Your task to perform on an android device: open app "VLC for Android" (install if not already installed) and enter user name: "Yves@outlook.com" and password: "internally" Image 0: 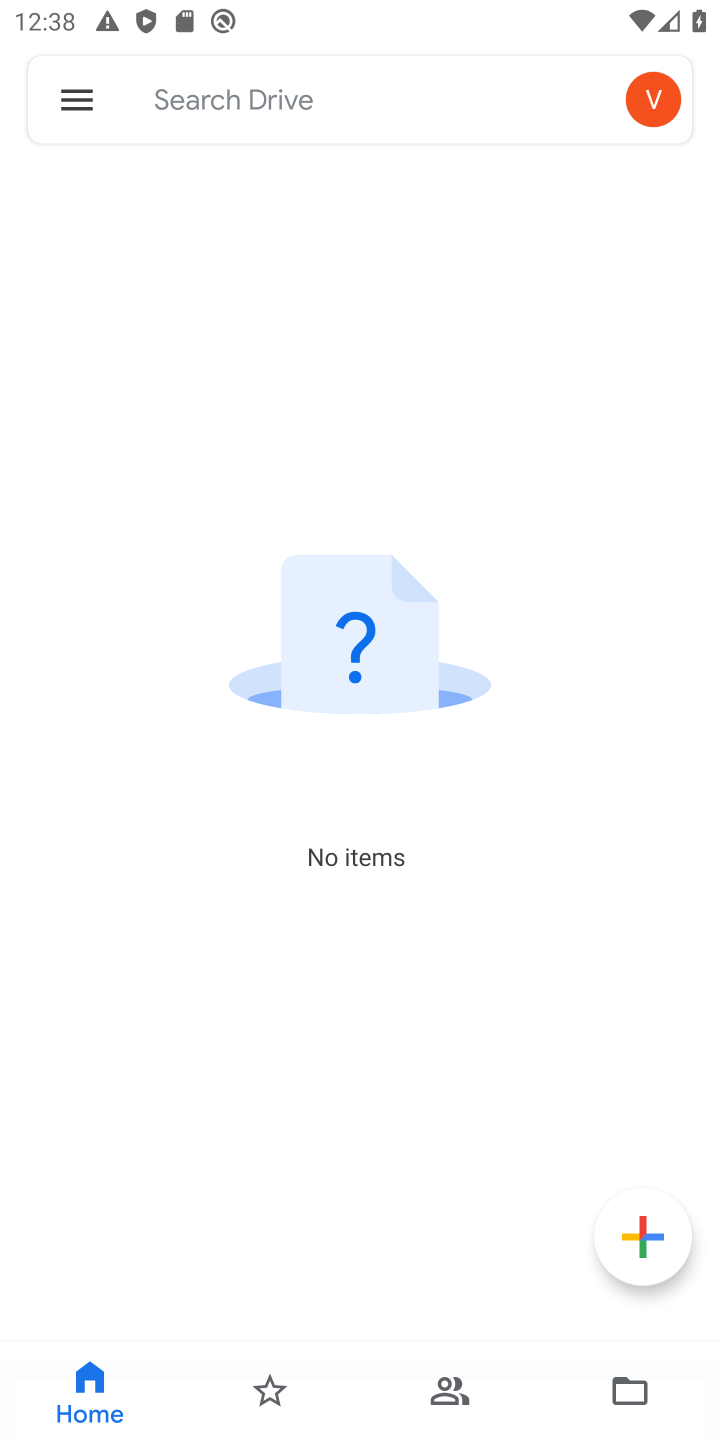
Step 0: press home button
Your task to perform on an android device: open app "VLC for Android" (install if not already installed) and enter user name: "Yves@outlook.com" and password: "internally" Image 1: 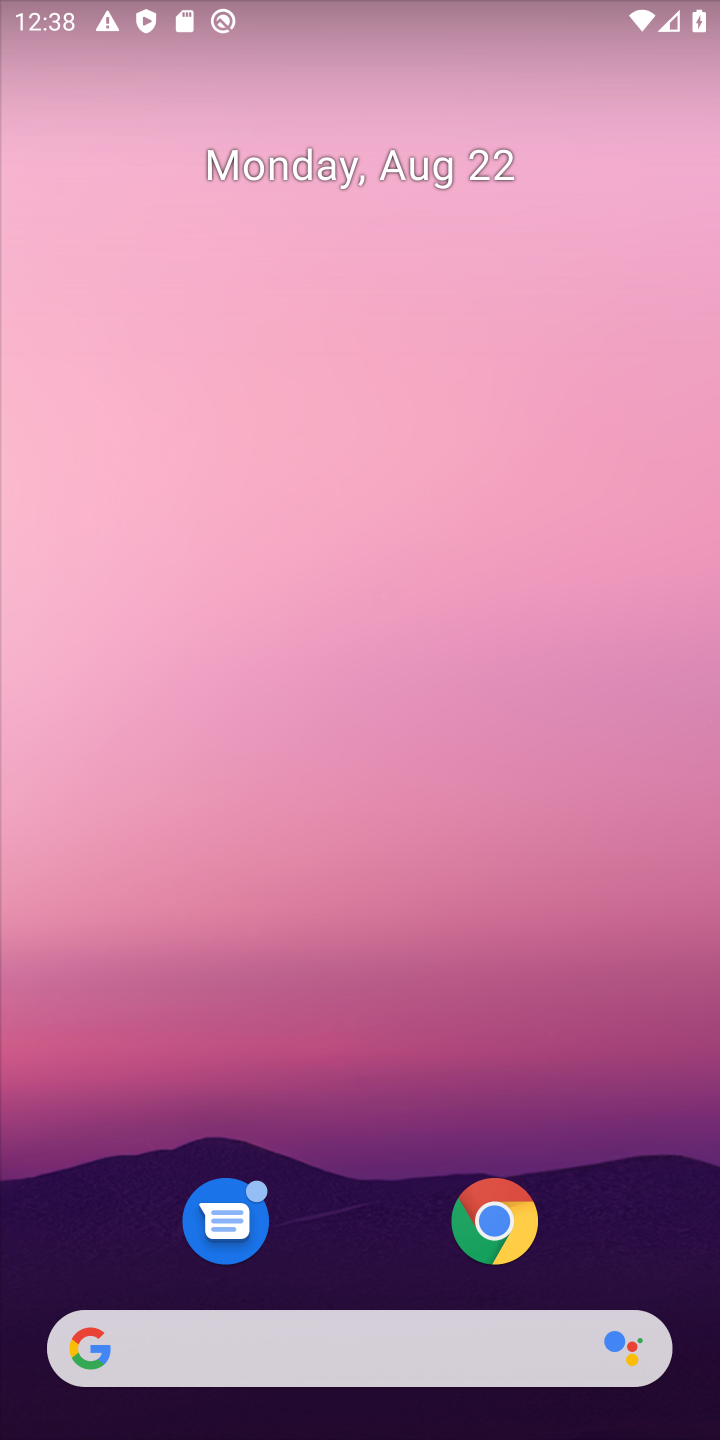
Step 1: press home button
Your task to perform on an android device: open app "VLC for Android" (install if not already installed) and enter user name: "Yves@outlook.com" and password: "internally" Image 2: 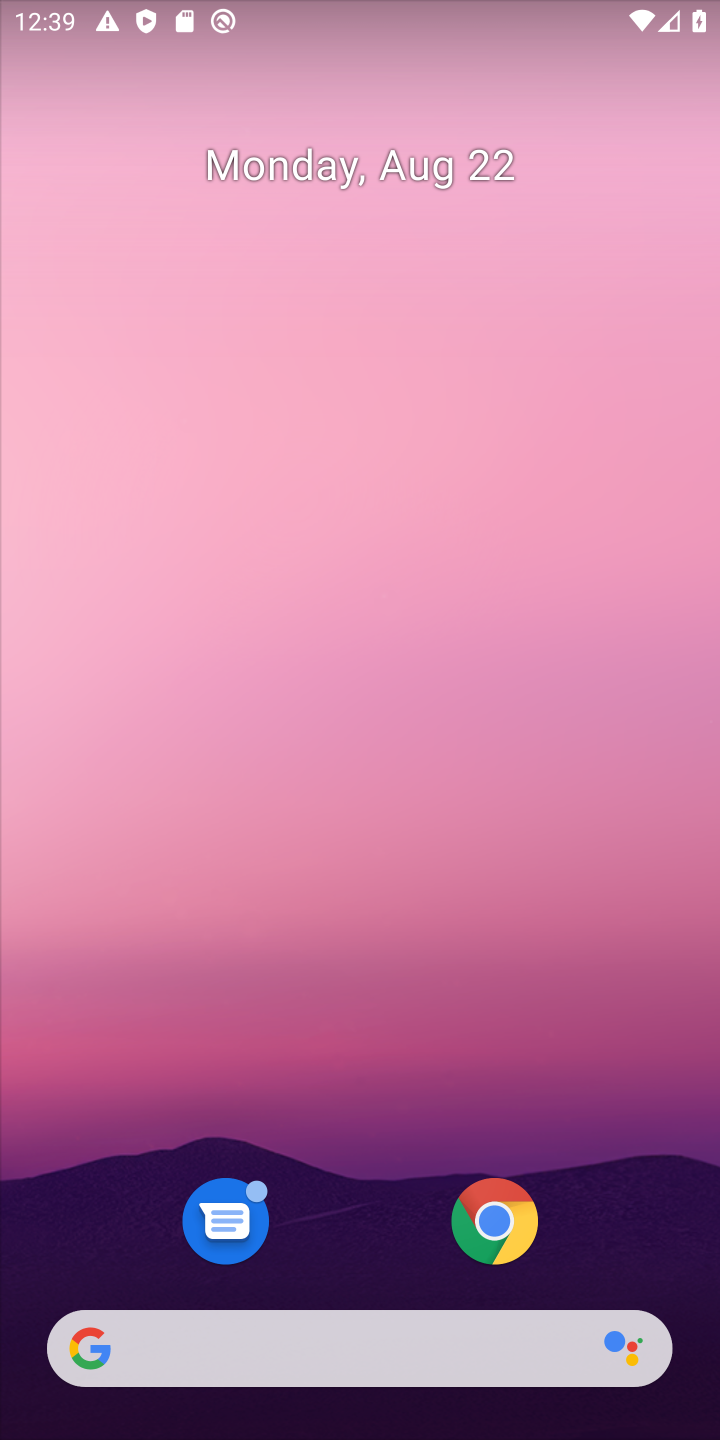
Step 2: drag from (365, 1284) to (446, 165)
Your task to perform on an android device: open app "VLC for Android" (install if not already installed) and enter user name: "Yves@outlook.com" and password: "internally" Image 3: 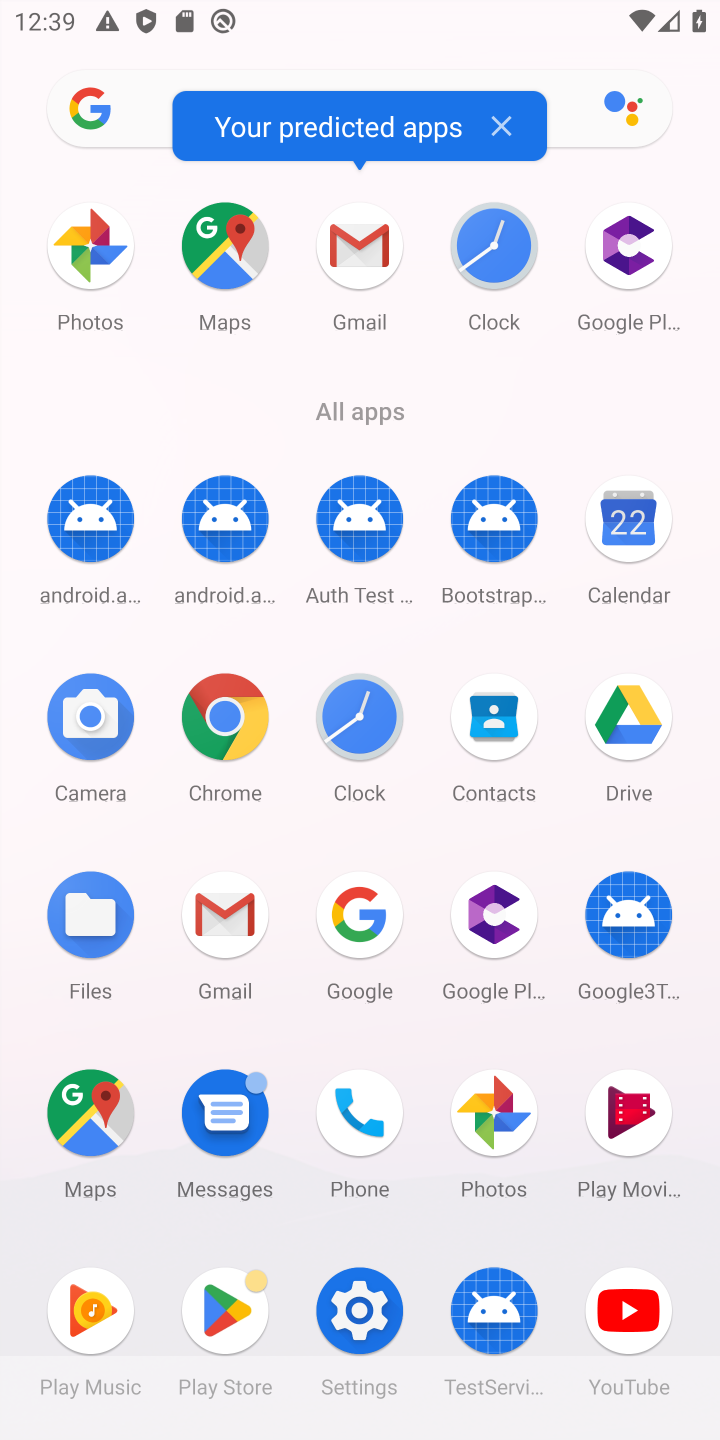
Step 3: click (212, 1297)
Your task to perform on an android device: open app "VLC for Android" (install if not already installed) and enter user name: "Yves@outlook.com" and password: "internally" Image 4: 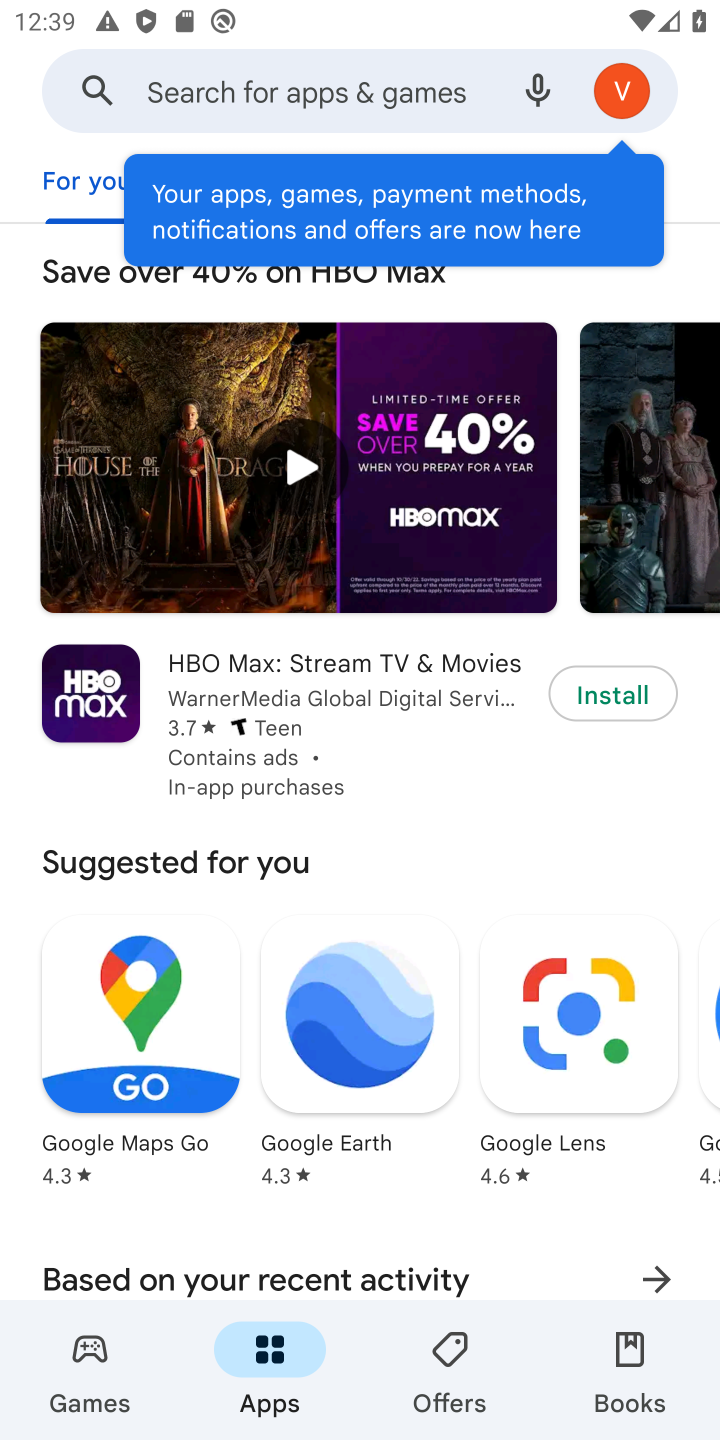
Step 4: click (216, 84)
Your task to perform on an android device: open app "VLC for Android" (install if not already installed) and enter user name: "Yves@outlook.com" and password: "internally" Image 5: 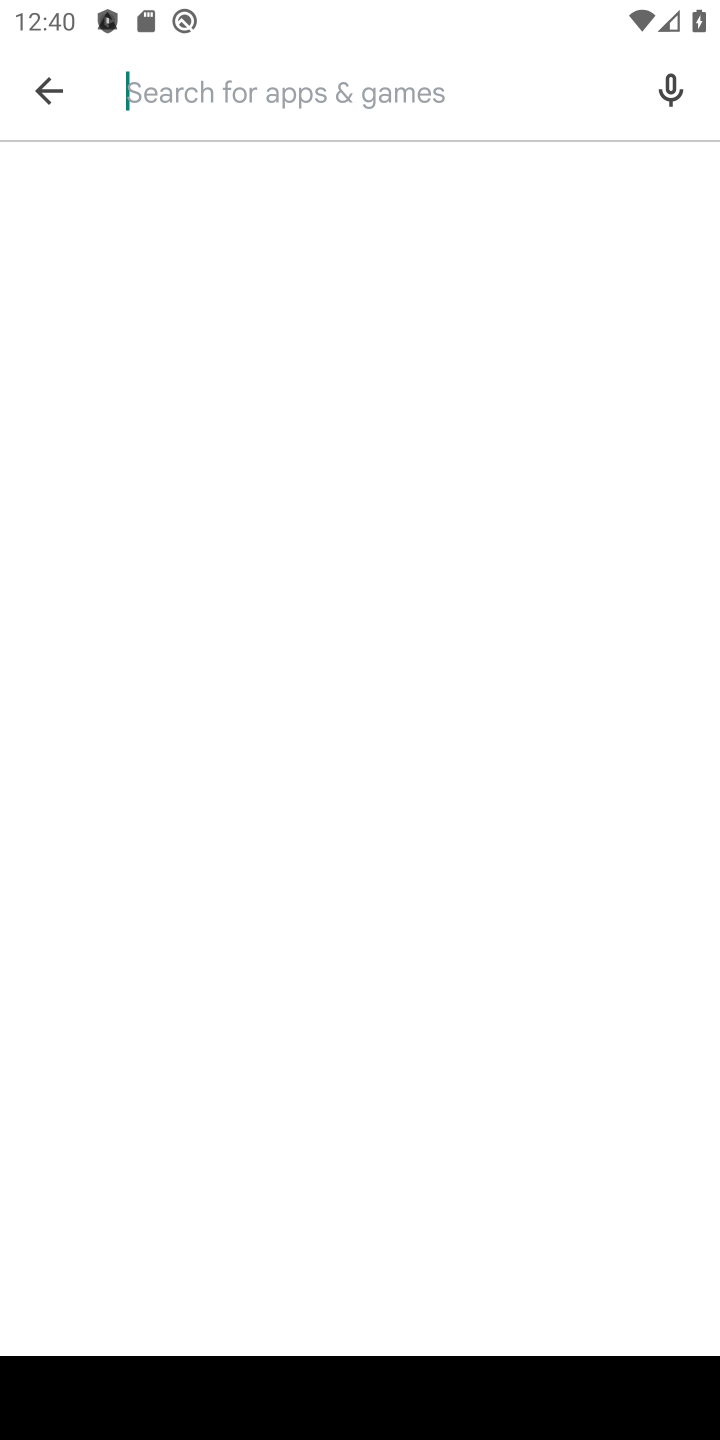
Step 5: type "VLC for Android"
Your task to perform on an android device: open app "VLC for Android" (install if not already installed) and enter user name: "Yves@outlook.com" and password: "internally" Image 6: 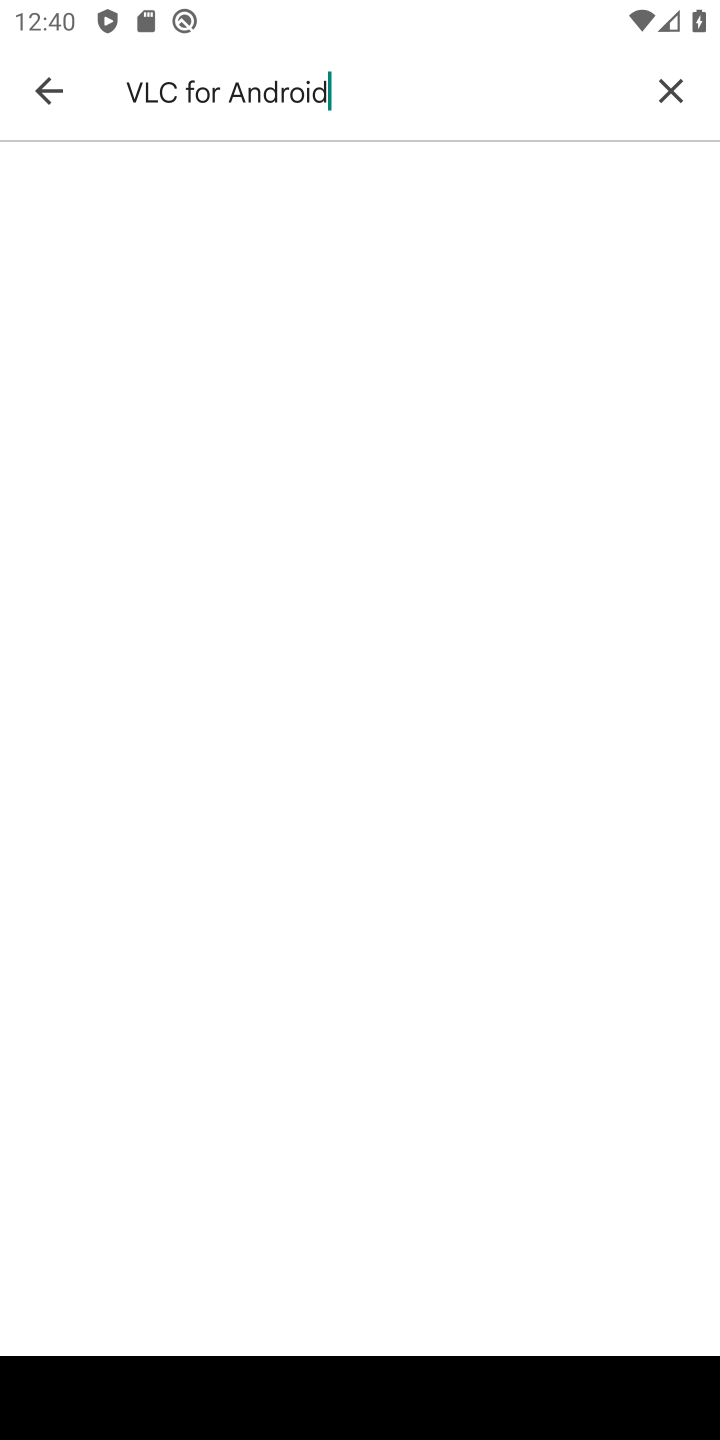
Step 6: type ""
Your task to perform on an android device: open app "VLC for Android" (install if not already installed) and enter user name: "Yves@outlook.com" and password: "internally" Image 7: 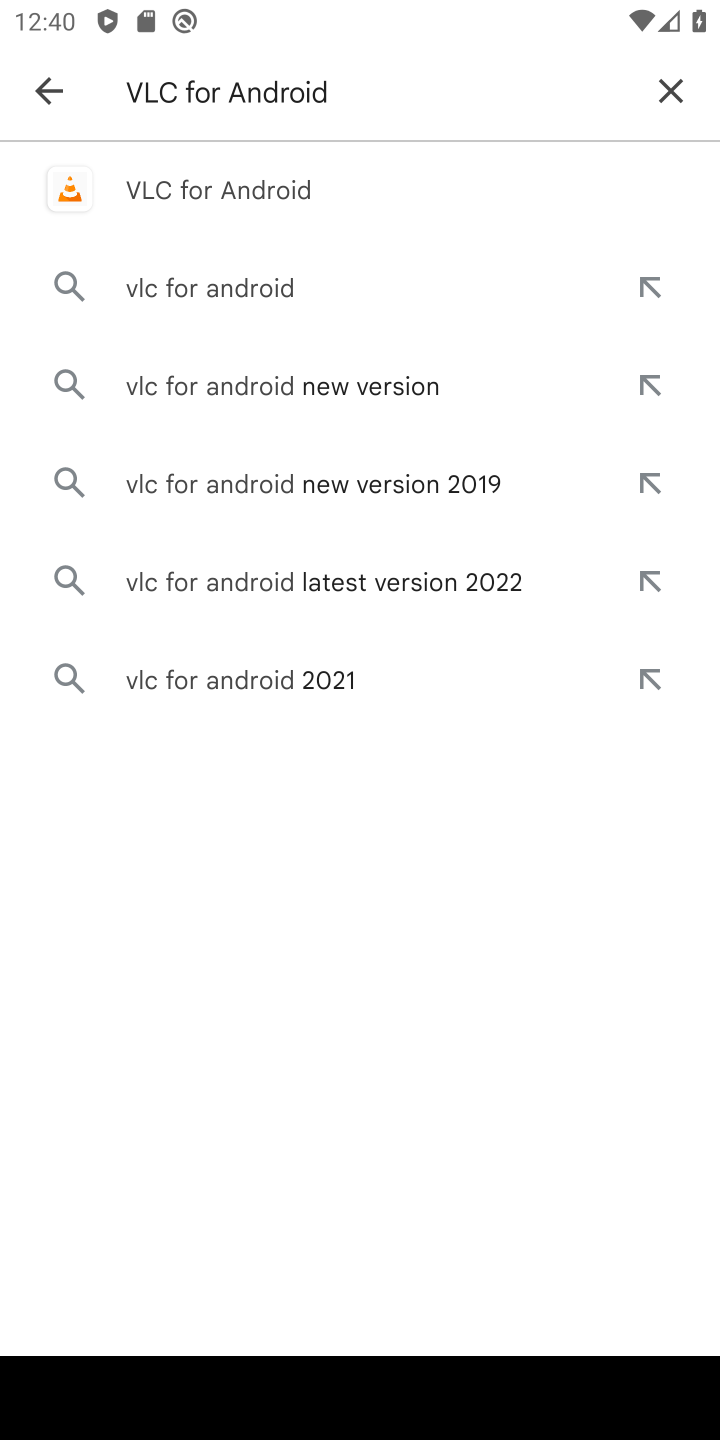
Step 7: click (312, 194)
Your task to perform on an android device: open app "VLC for Android" (install if not already installed) and enter user name: "Yves@outlook.com" and password: "internally" Image 8: 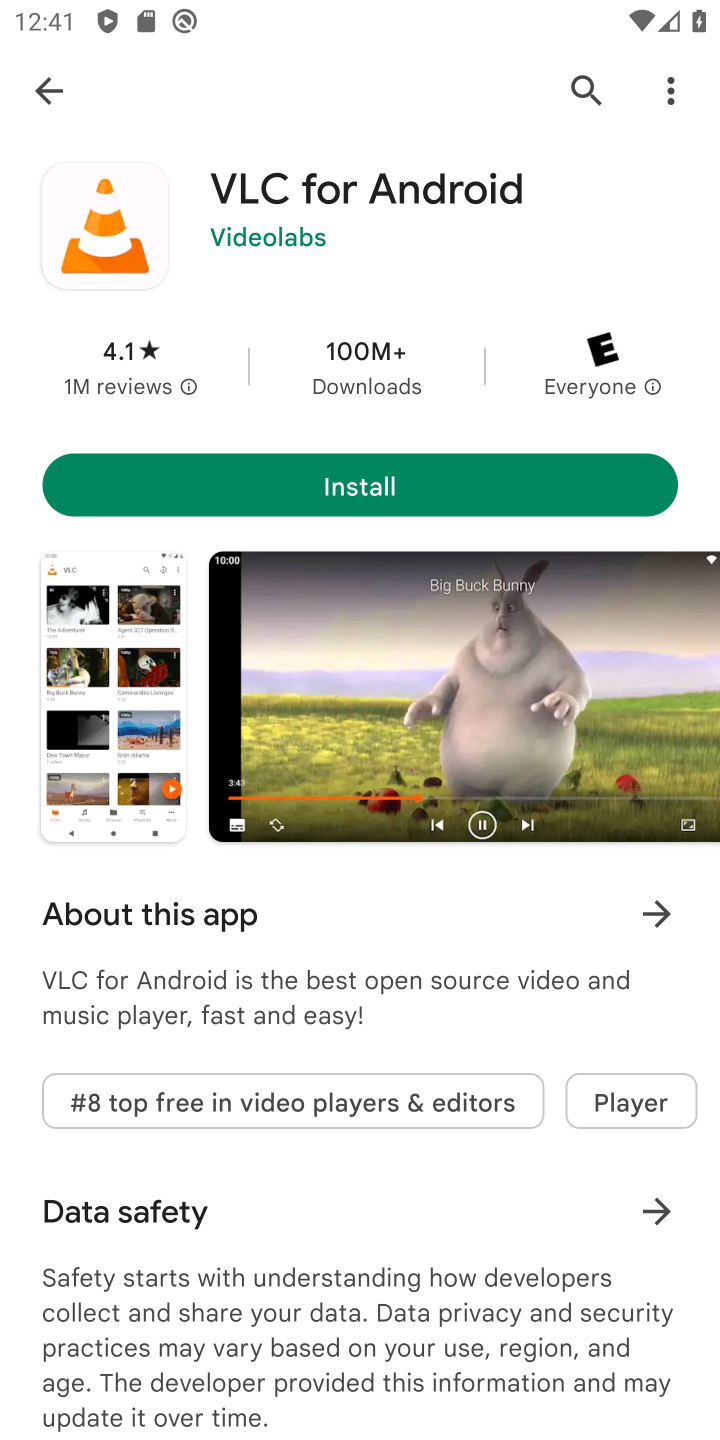
Step 8: click (384, 469)
Your task to perform on an android device: open app "VLC for Android" (install if not already installed) and enter user name: "Yves@outlook.com" and password: "internally" Image 9: 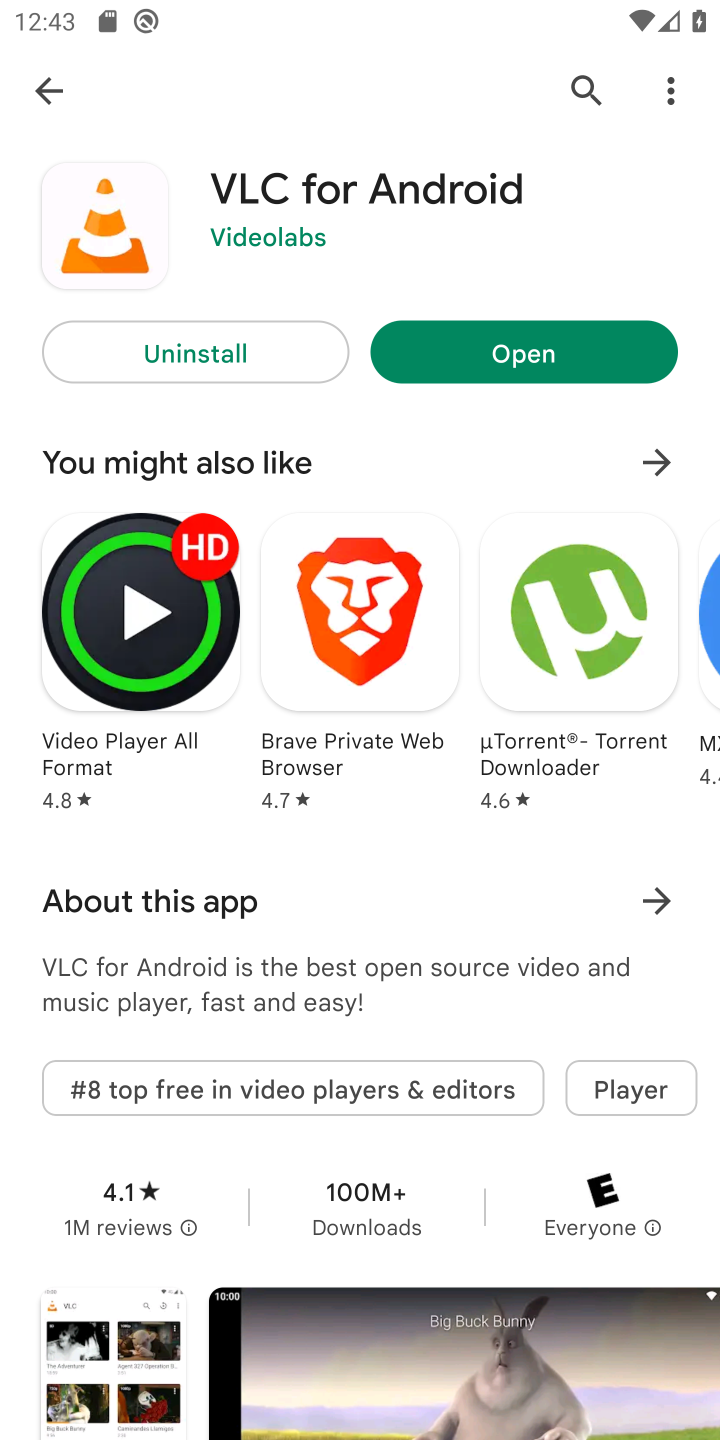
Step 9: click (553, 352)
Your task to perform on an android device: open app "VLC for Android" (install if not already installed) and enter user name: "Yves@outlook.com" and password: "internally" Image 10: 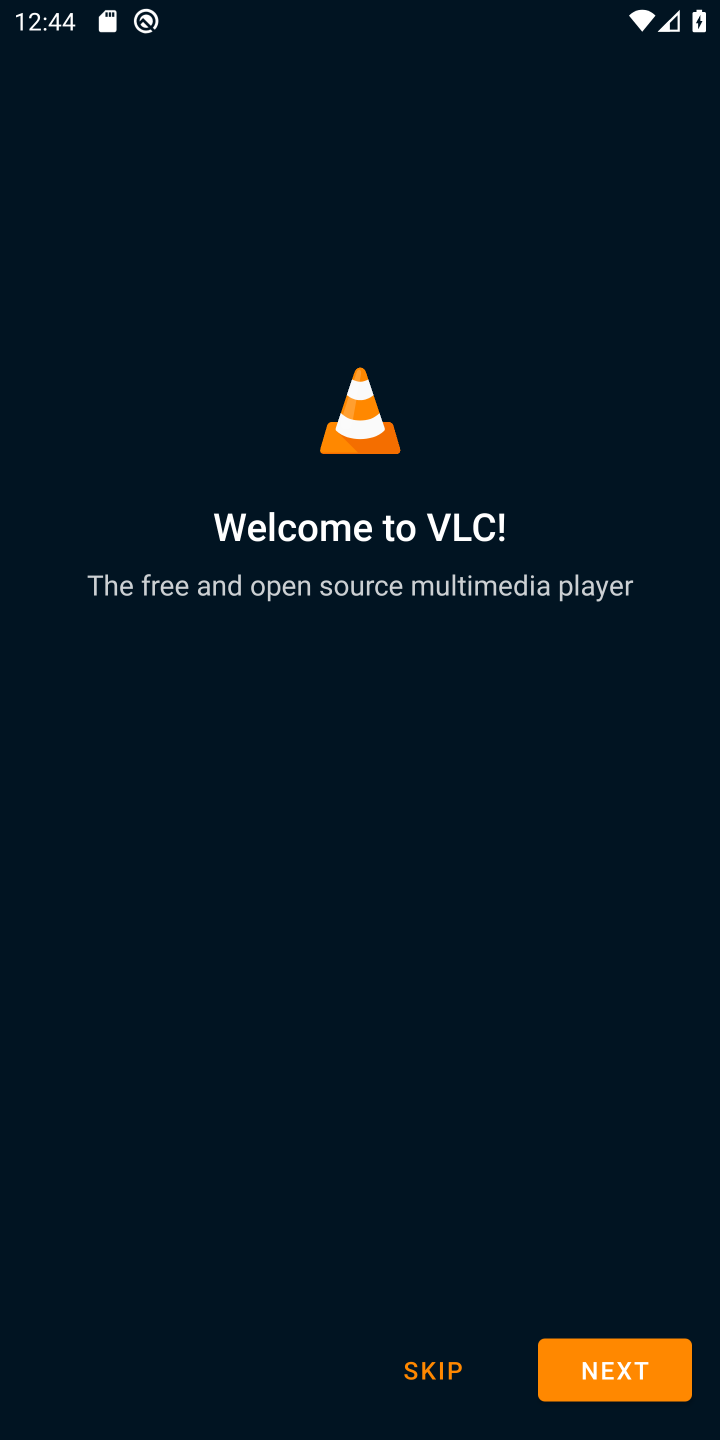
Step 10: click (430, 1362)
Your task to perform on an android device: open app "VLC for Android" (install if not already installed) and enter user name: "Yves@outlook.com" and password: "internally" Image 11: 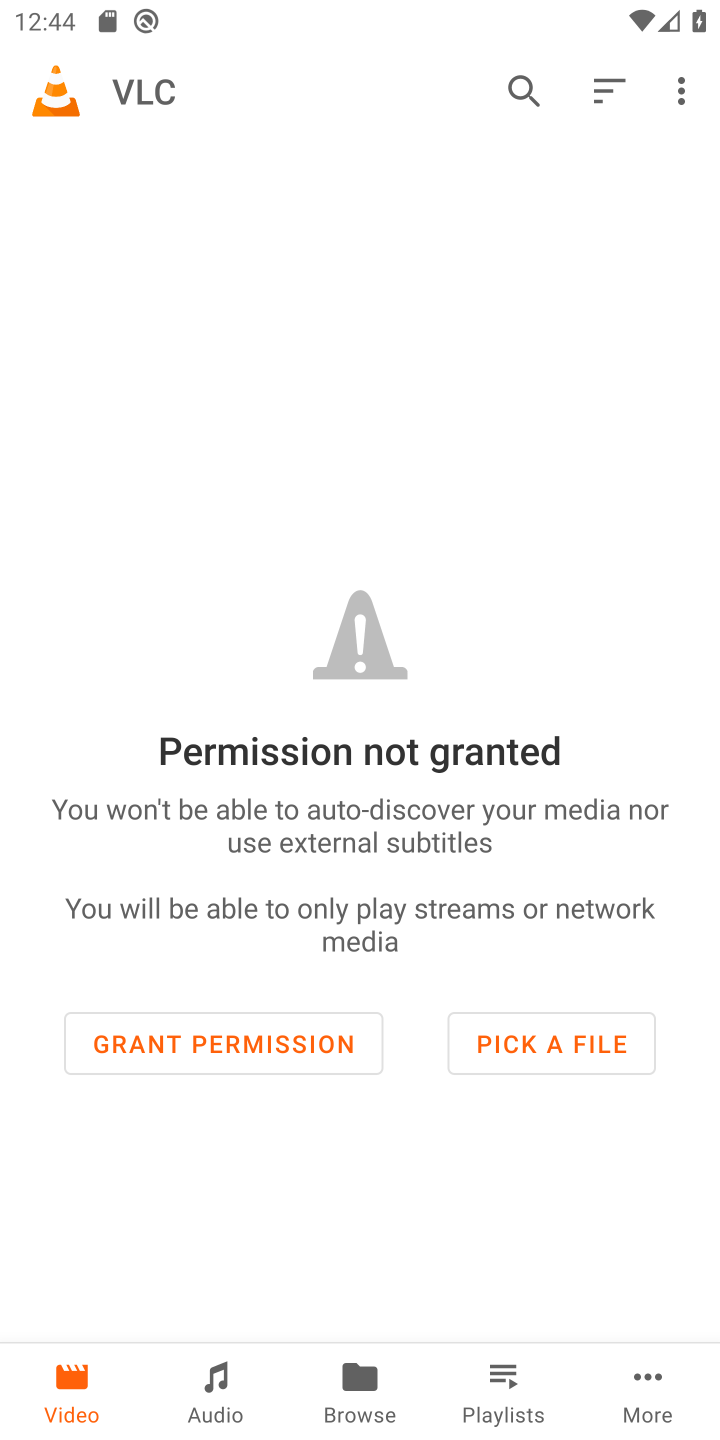
Step 11: click (632, 1377)
Your task to perform on an android device: open app "VLC for Android" (install if not already installed) and enter user name: "Yves@outlook.com" and password: "internally" Image 12: 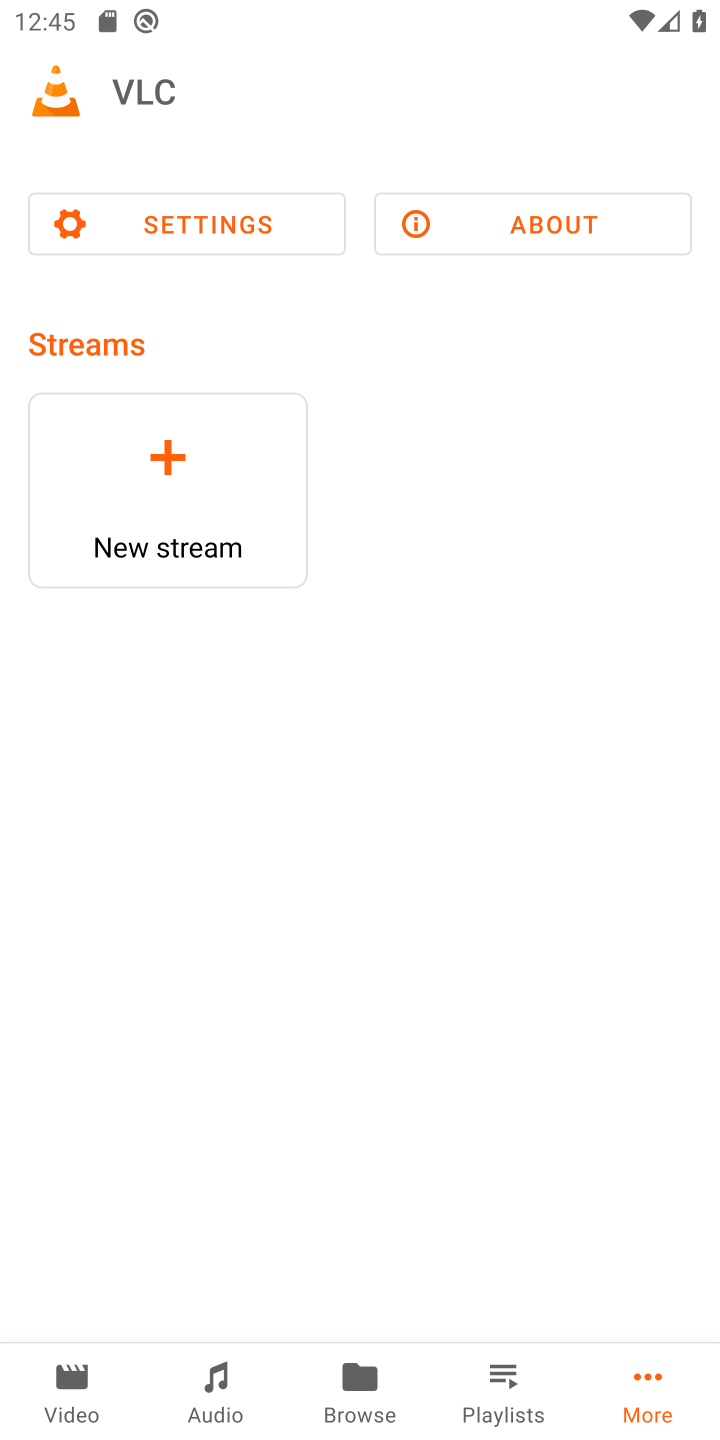
Step 12: task complete